Your task to perform on an android device: open app "Google Duo" (install if not already installed) Image 0: 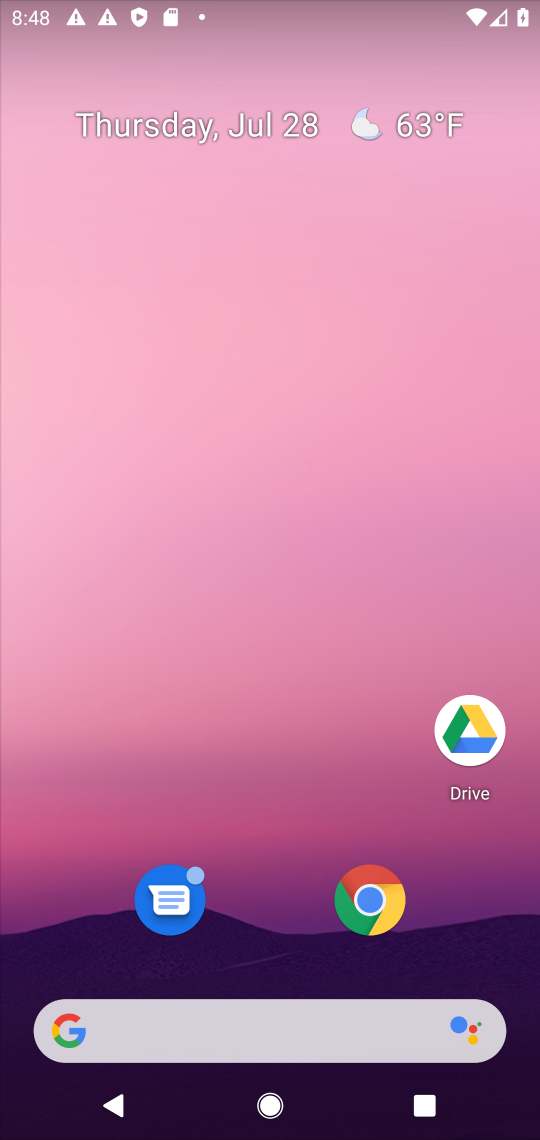
Step 0: drag from (231, 803) to (513, 117)
Your task to perform on an android device: open app "Google Duo" (install if not already installed) Image 1: 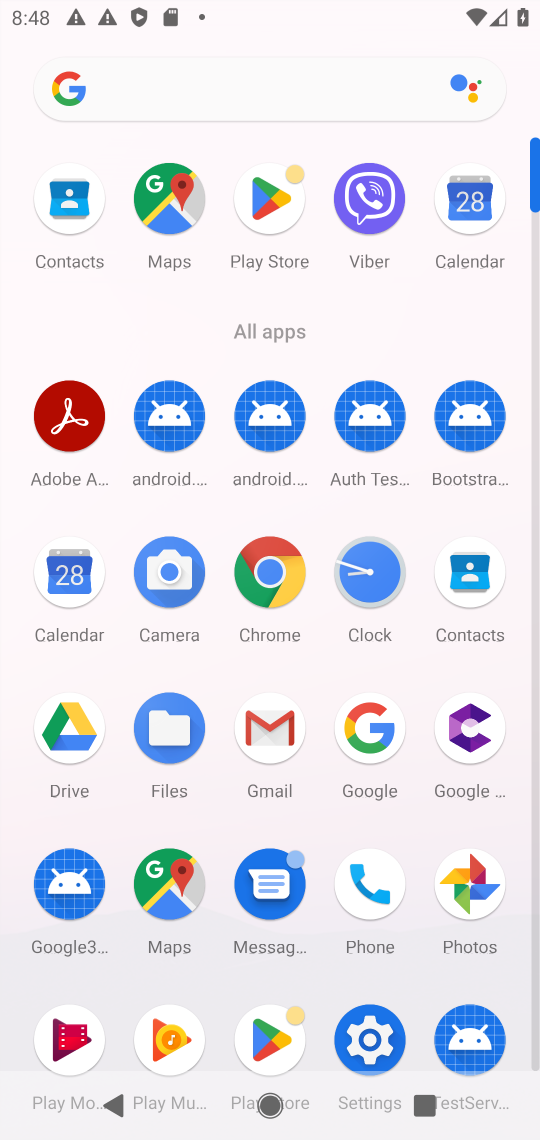
Step 1: click (262, 1035)
Your task to perform on an android device: open app "Google Duo" (install if not already installed) Image 2: 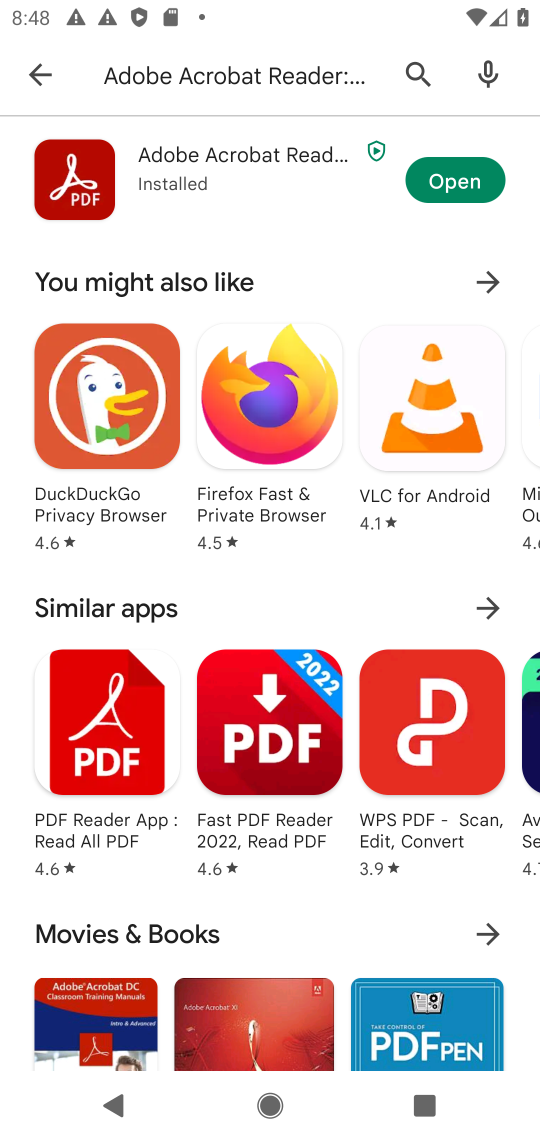
Step 2: click (415, 66)
Your task to perform on an android device: open app "Google Duo" (install if not already installed) Image 3: 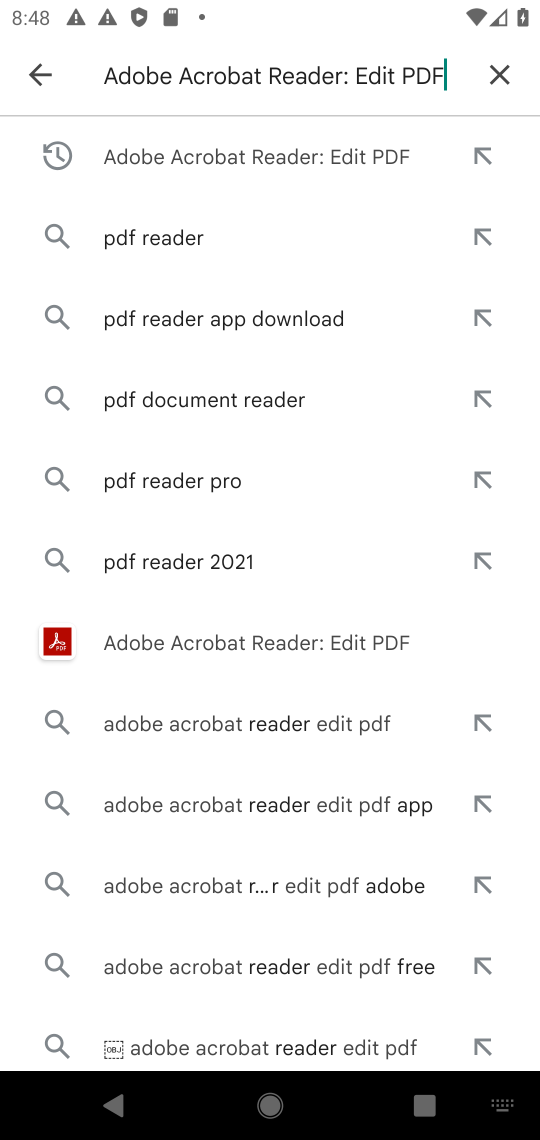
Step 3: click (496, 70)
Your task to perform on an android device: open app "Google Duo" (install if not already installed) Image 4: 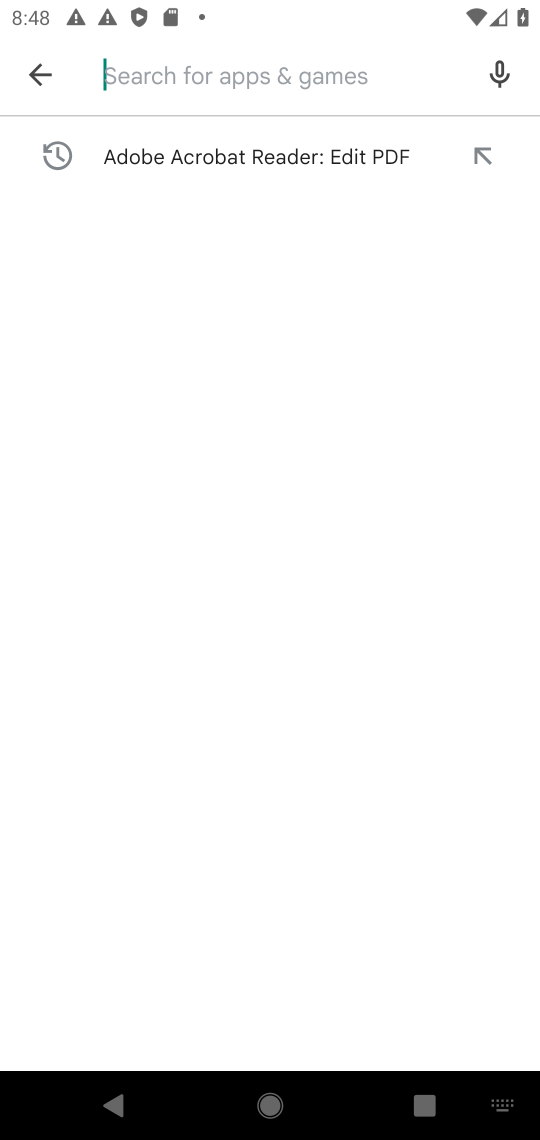
Step 4: type "Google Duo"
Your task to perform on an android device: open app "Google Duo" (install if not already installed) Image 5: 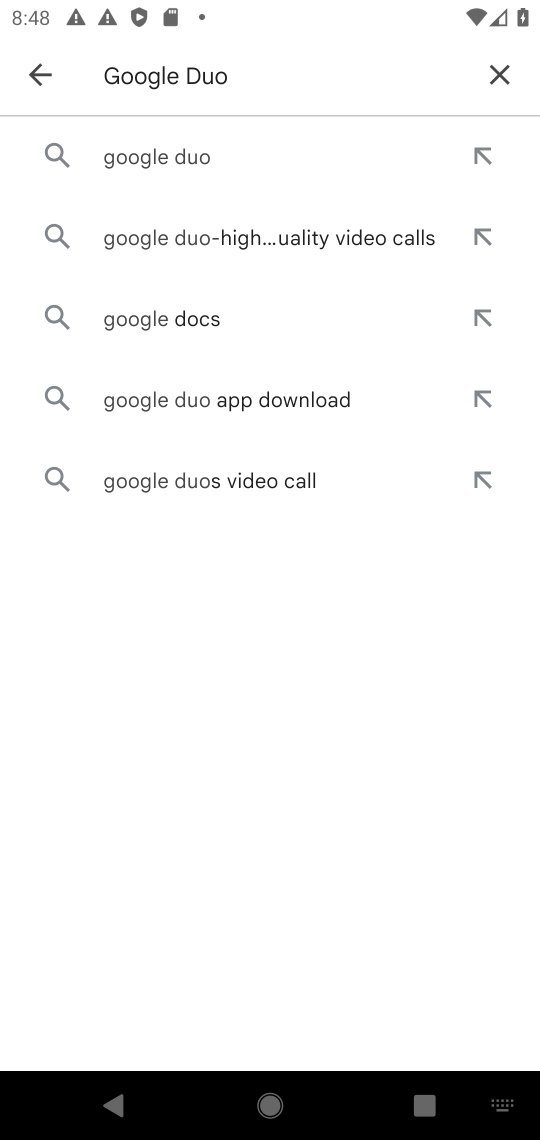
Step 5: press enter
Your task to perform on an android device: open app "Google Duo" (install if not already installed) Image 6: 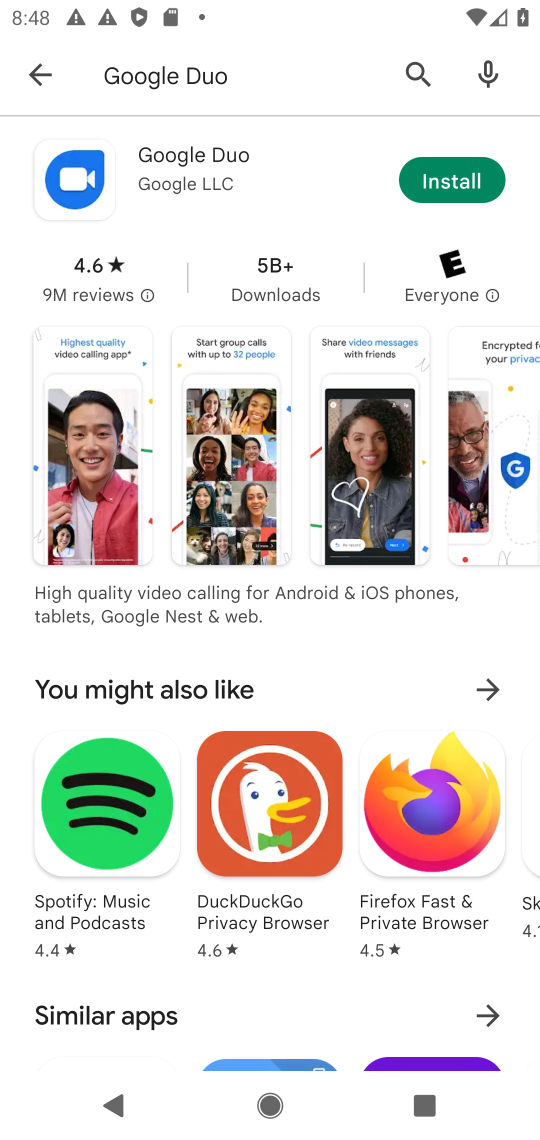
Step 6: click (466, 183)
Your task to perform on an android device: open app "Google Duo" (install if not already installed) Image 7: 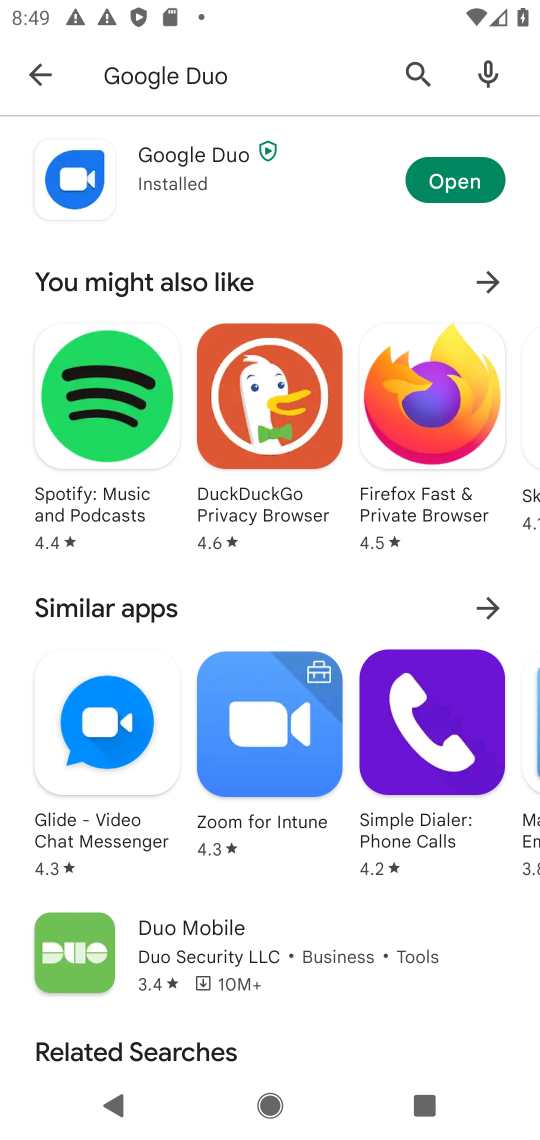
Step 7: task complete